Your task to perform on an android device: turn off smart reply in the gmail app Image 0: 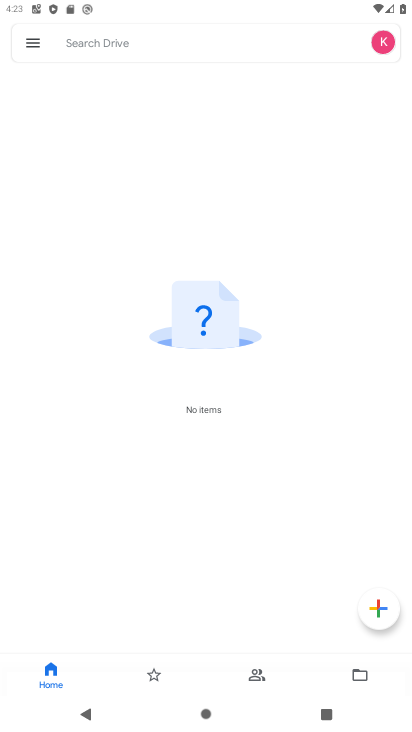
Step 0: press home button
Your task to perform on an android device: turn off smart reply in the gmail app Image 1: 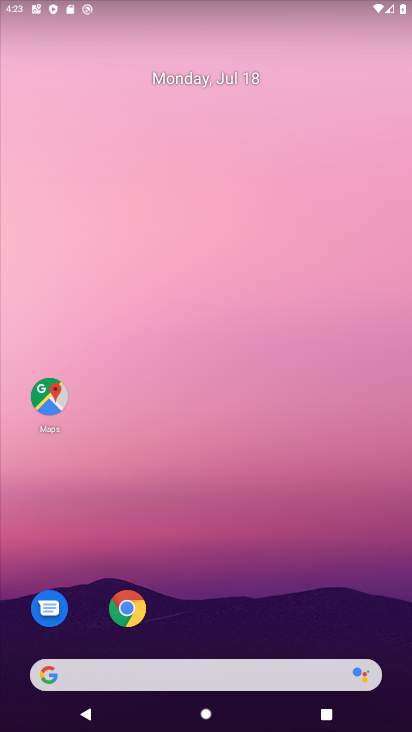
Step 1: drag from (226, 531) to (169, 45)
Your task to perform on an android device: turn off smart reply in the gmail app Image 2: 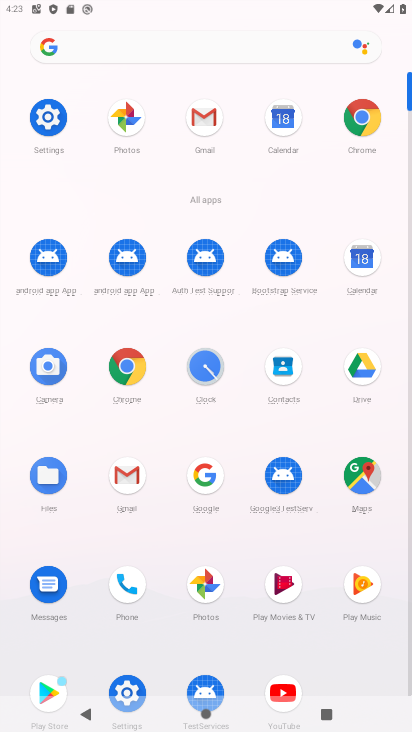
Step 2: click (202, 111)
Your task to perform on an android device: turn off smart reply in the gmail app Image 3: 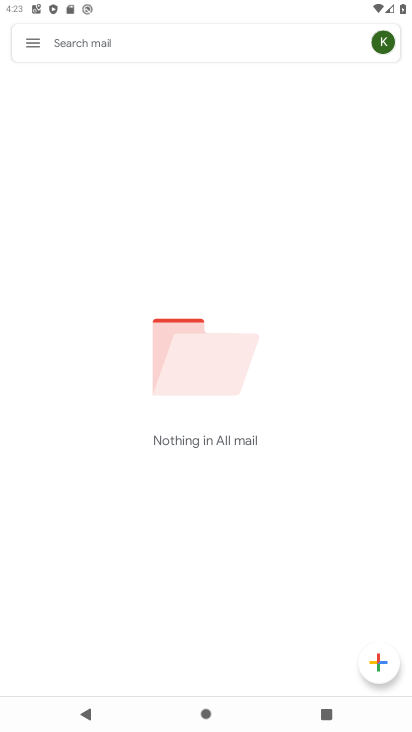
Step 3: click (202, 111)
Your task to perform on an android device: turn off smart reply in the gmail app Image 4: 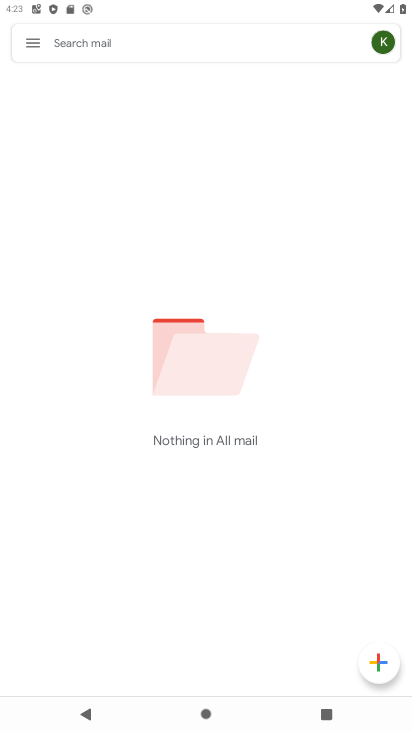
Step 4: click (29, 43)
Your task to perform on an android device: turn off smart reply in the gmail app Image 5: 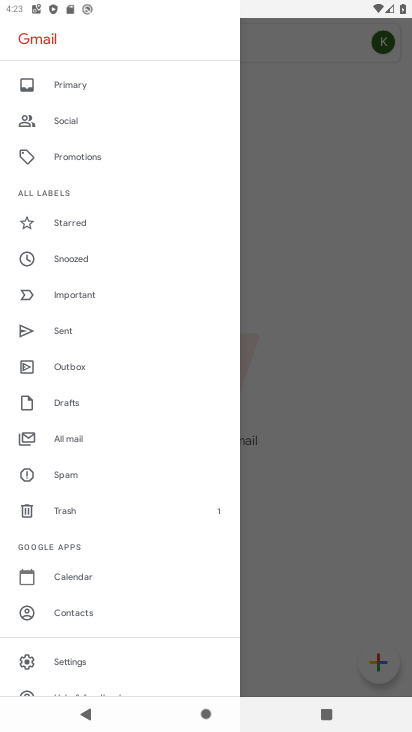
Step 5: click (91, 658)
Your task to perform on an android device: turn off smart reply in the gmail app Image 6: 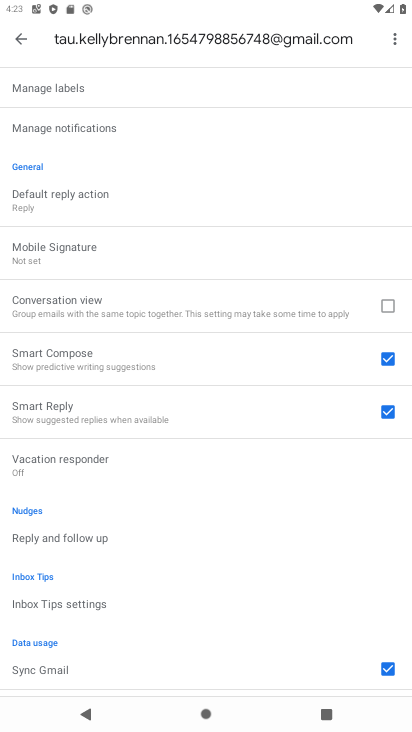
Step 6: drag from (138, 673) to (97, 319)
Your task to perform on an android device: turn off smart reply in the gmail app Image 7: 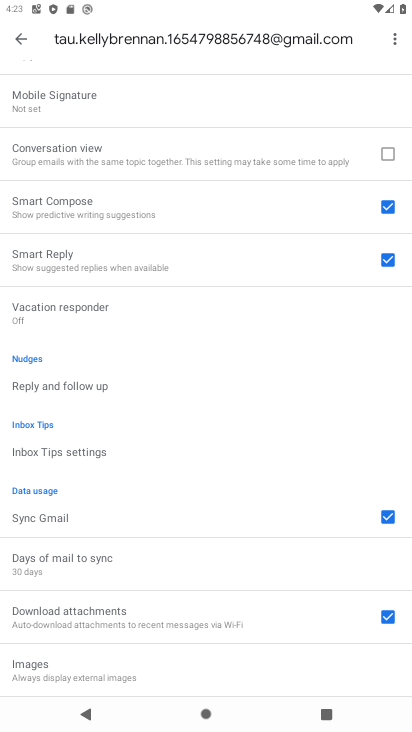
Step 7: click (385, 263)
Your task to perform on an android device: turn off smart reply in the gmail app Image 8: 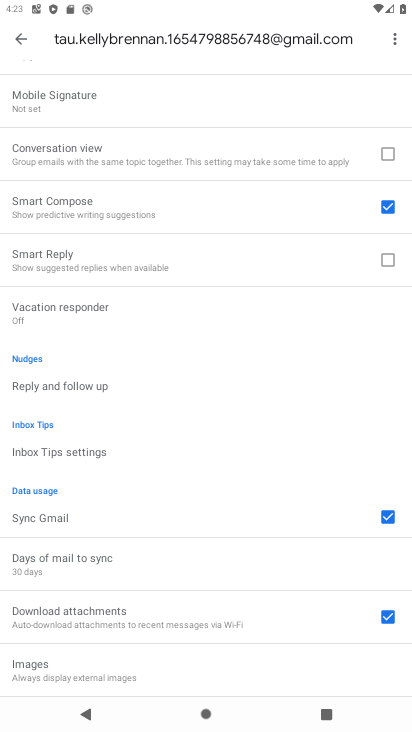
Step 8: task complete